Your task to perform on an android device: turn off location history Image 0: 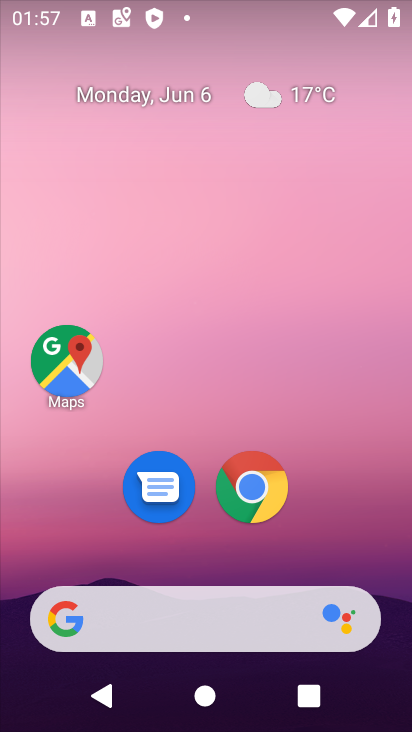
Step 0: click (66, 361)
Your task to perform on an android device: turn off location history Image 1: 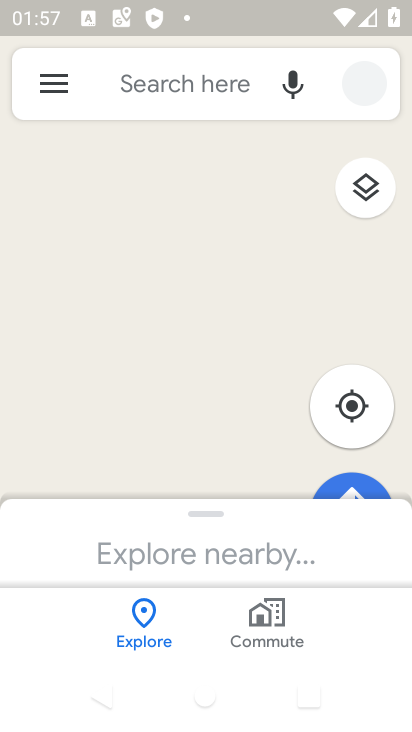
Step 1: click (49, 85)
Your task to perform on an android device: turn off location history Image 2: 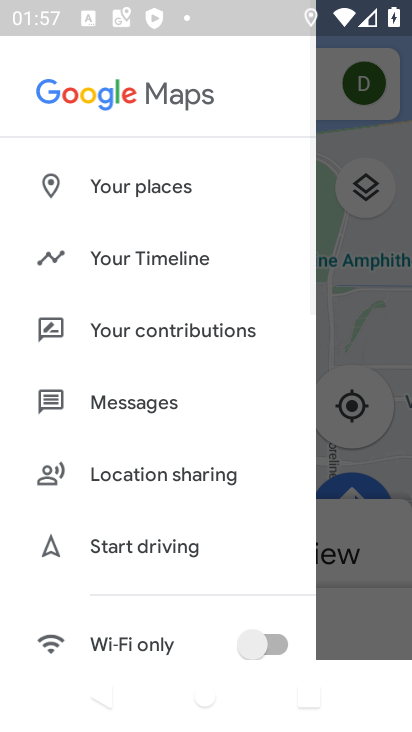
Step 2: drag from (228, 624) to (224, 172)
Your task to perform on an android device: turn off location history Image 3: 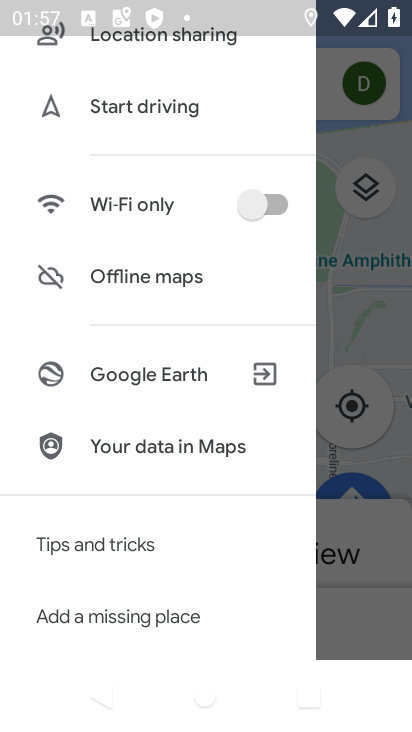
Step 3: drag from (206, 599) to (185, 170)
Your task to perform on an android device: turn off location history Image 4: 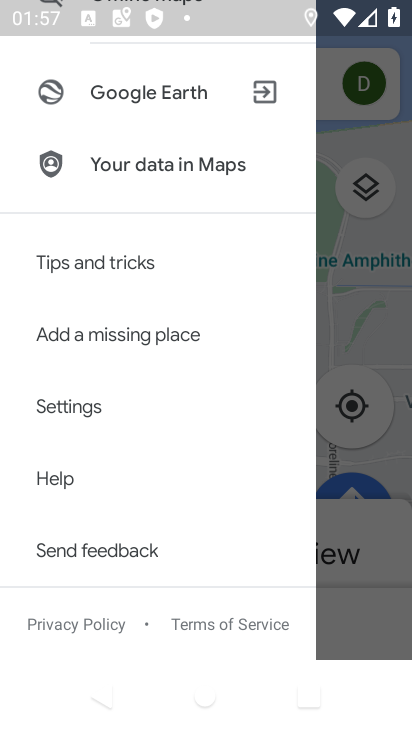
Step 4: click (64, 404)
Your task to perform on an android device: turn off location history Image 5: 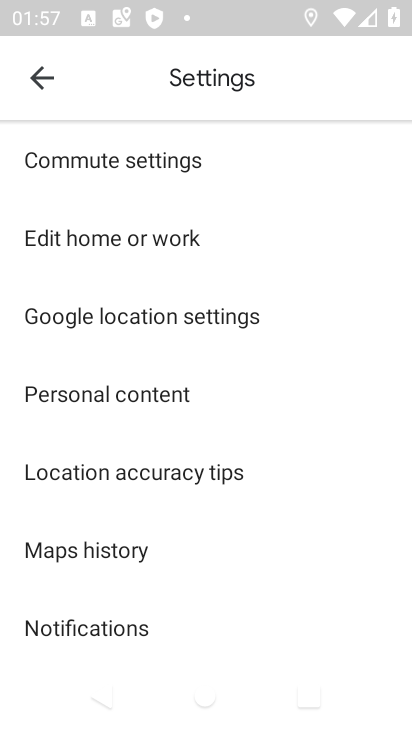
Step 5: click (101, 397)
Your task to perform on an android device: turn off location history Image 6: 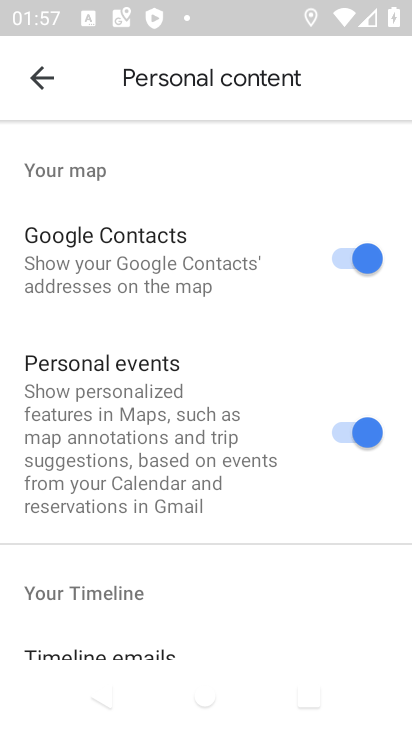
Step 6: task complete